Your task to perform on an android device: change the clock display to analog Image 0: 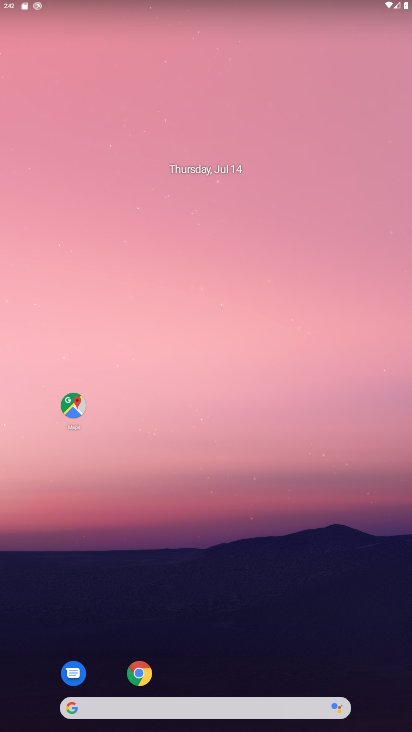
Step 0: drag from (278, 659) to (203, 53)
Your task to perform on an android device: change the clock display to analog Image 1: 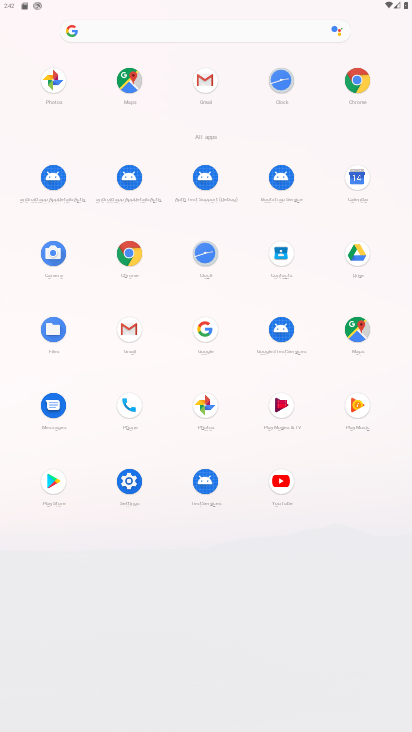
Step 1: click (208, 271)
Your task to perform on an android device: change the clock display to analog Image 2: 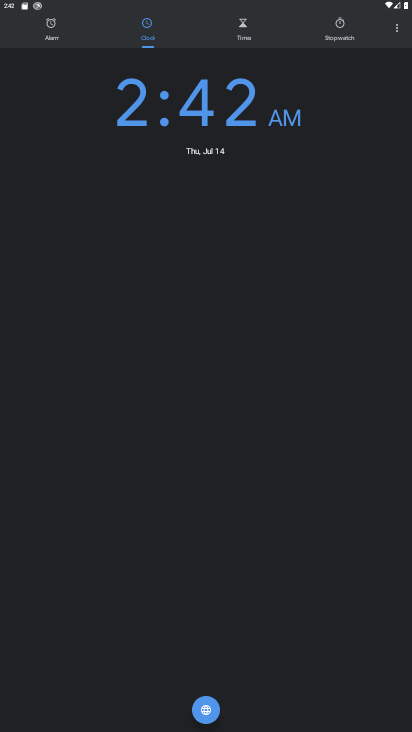
Step 2: click (399, 22)
Your task to perform on an android device: change the clock display to analog Image 3: 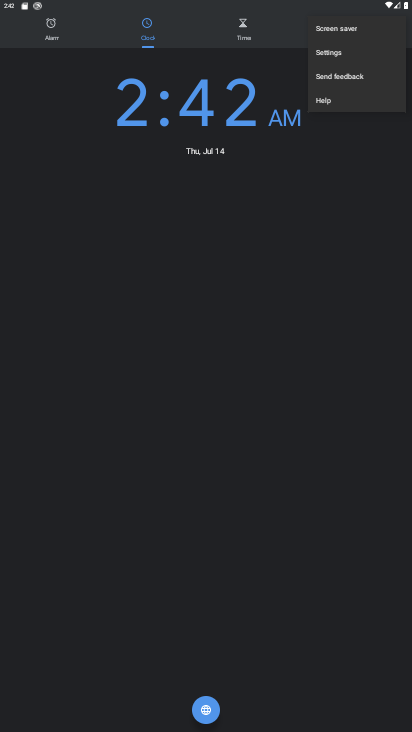
Step 3: click (377, 52)
Your task to perform on an android device: change the clock display to analog Image 4: 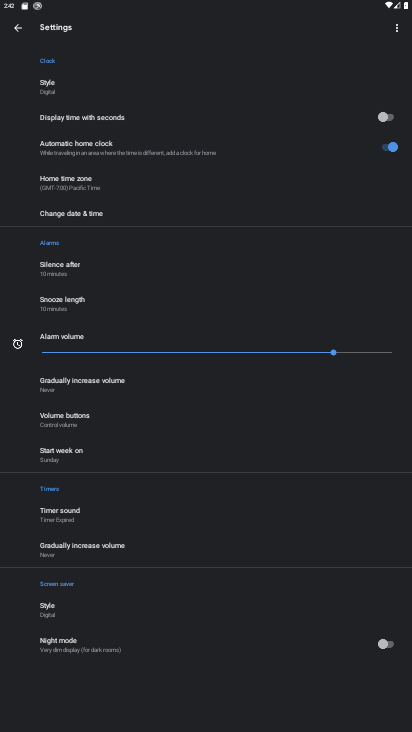
Step 4: click (84, 88)
Your task to perform on an android device: change the clock display to analog Image 5: 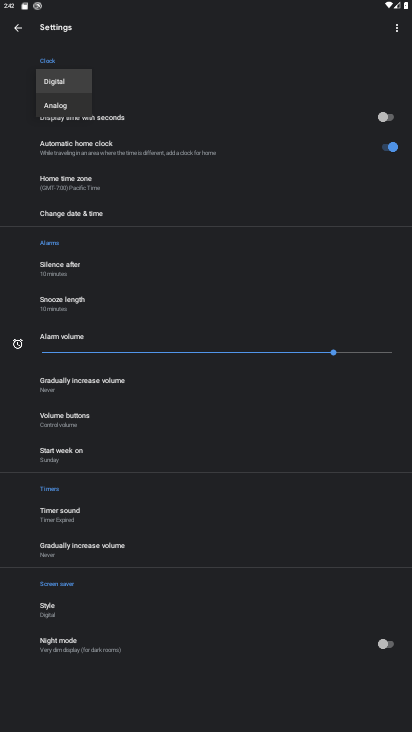
Step 5: click (75, 106)
Your task to perform on an android device: change the clock display to analog Image 6: 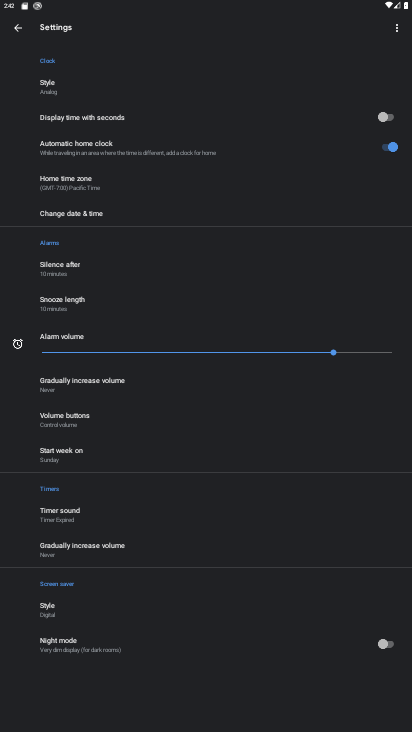
Step 6: task complete